Your task to perform on an android device: toggle airplane mode Image 0: 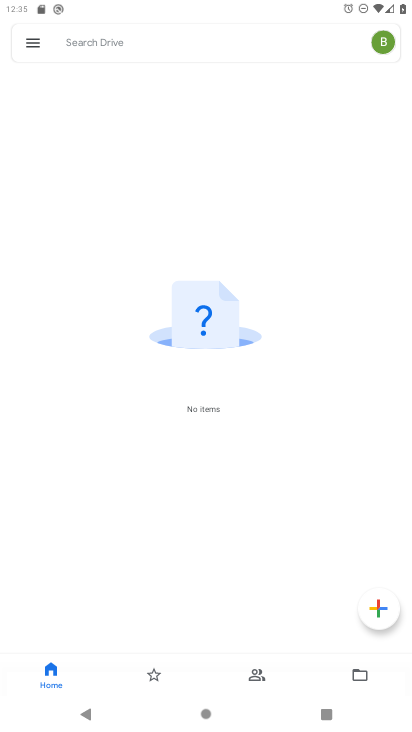
Step 0: press home button
Your task to perform on an android device: toggle airplane mode Image 1: 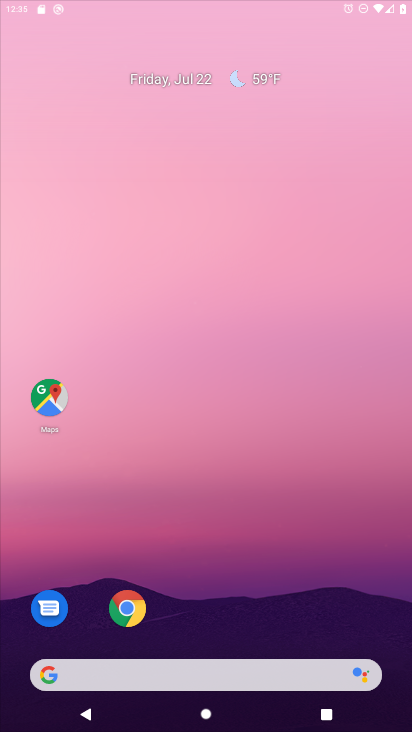
Step 1: drag from (367, 527) to (215, 6)
Your task to perform on an android device: toggle airplane mode Image 2: 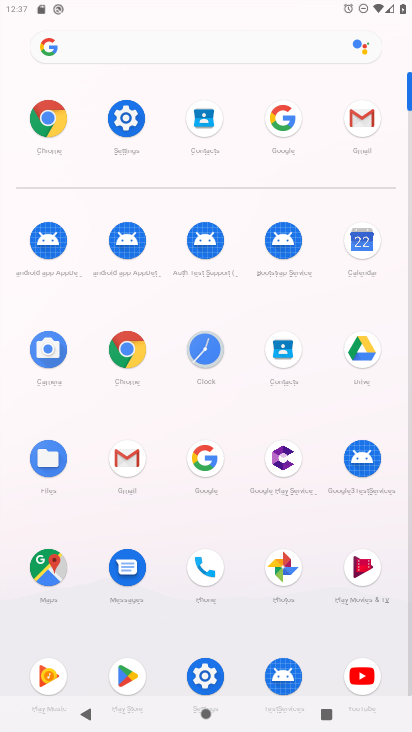
Step 2: drag from (250, 26) to (213, 555)
Your task to perform on an android device: toggle airplane mode Image 3: 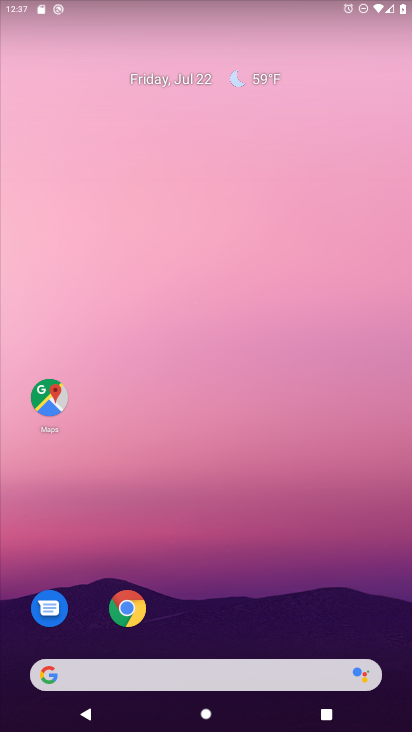
Step 3: drag from (230, 12) to (260, 637)
Your task to perform on an android device: toggle airplane mode Image 4: 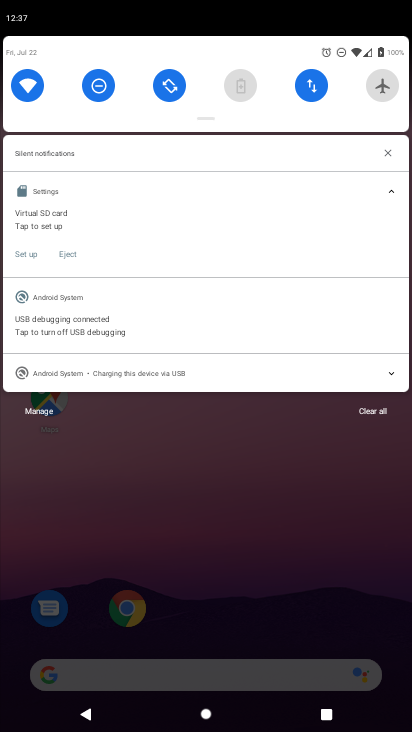
Step 4: click (378, 94)
Your task to perform on an android device: toggle airplane mode Image 5: 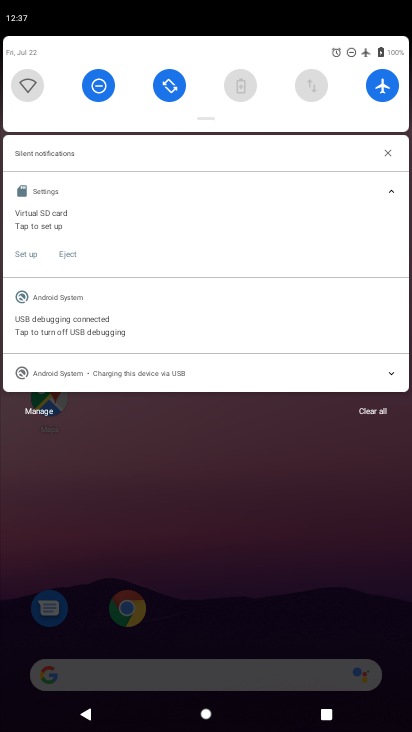
Step 5: task complete